Your task to perform on an android device: Open Yahoo.com Image 0: 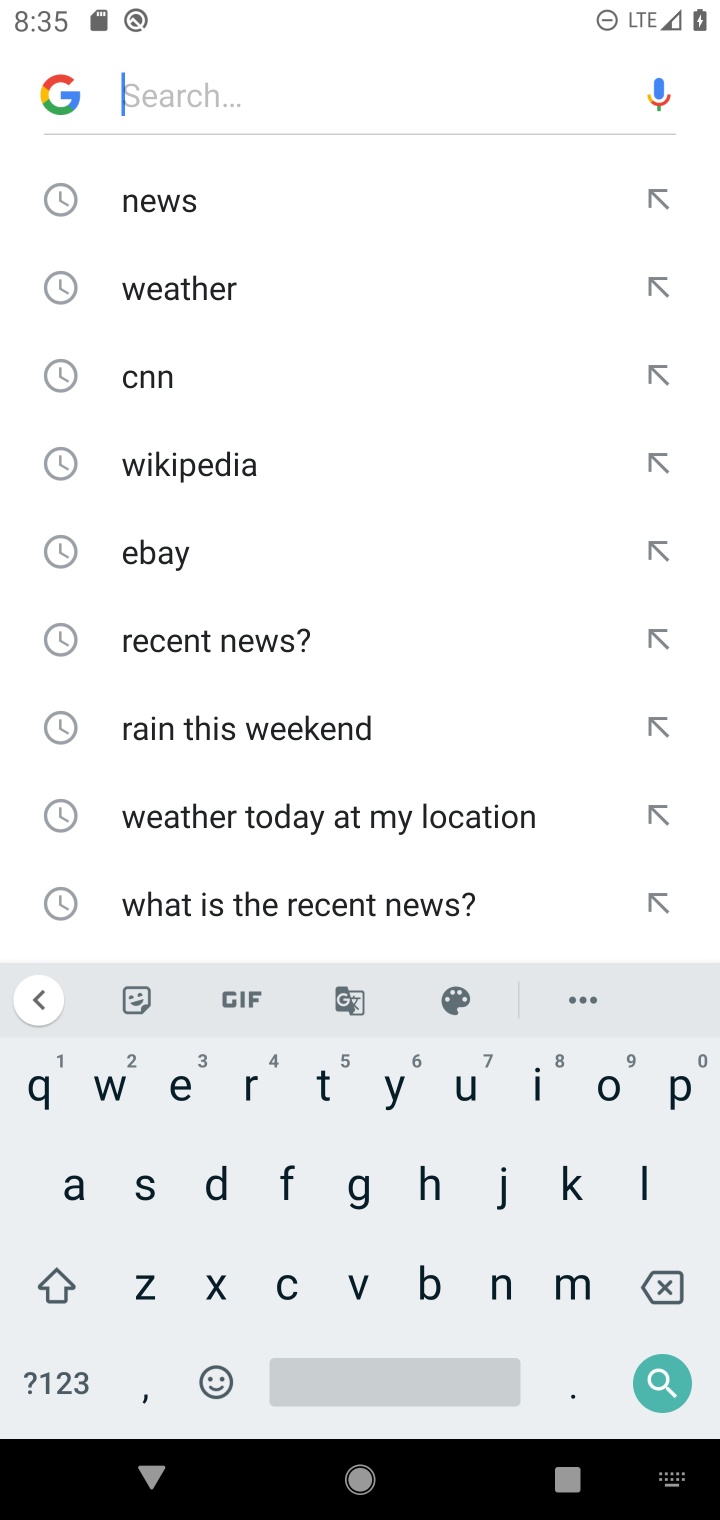
Step 0: press home button
Your task to perform on an android device: Open Yahoo.com Image 1: 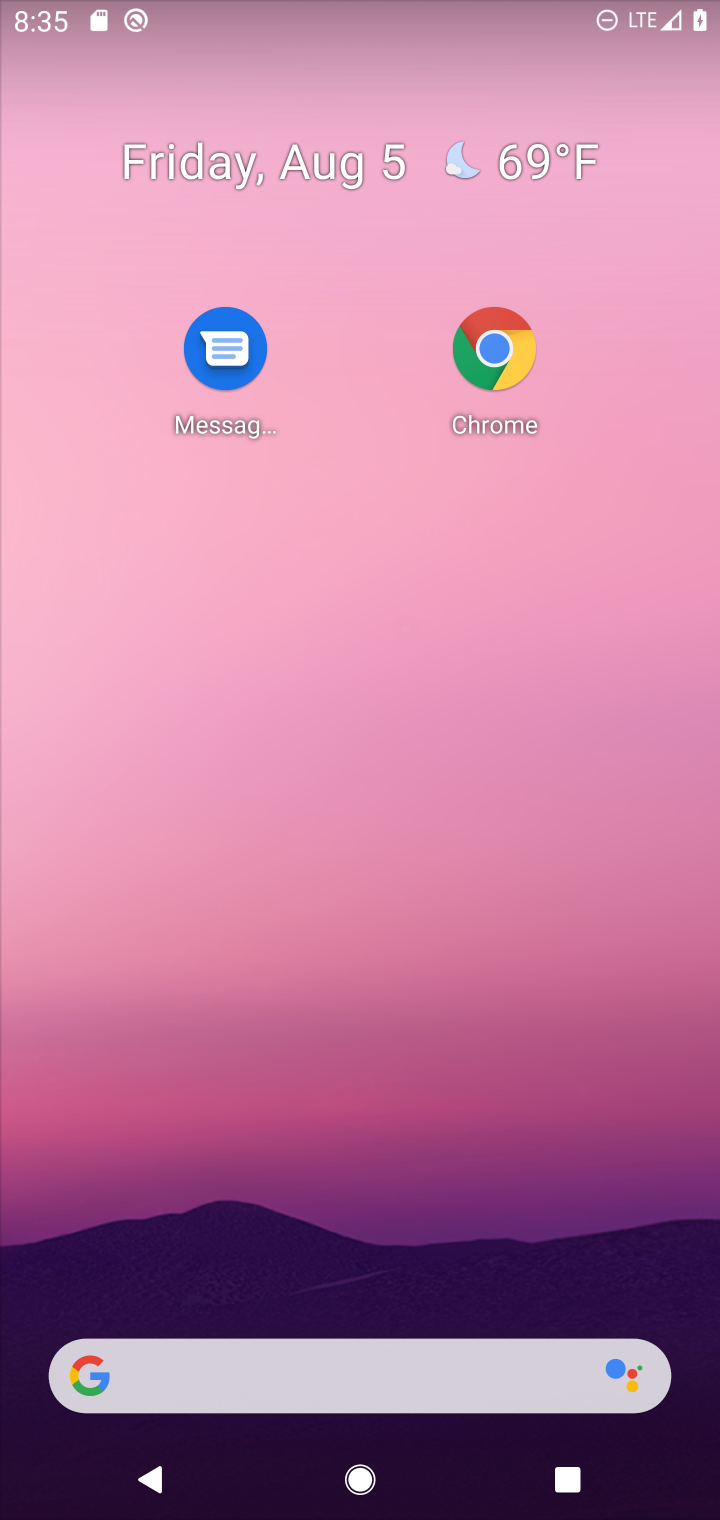
Step 1: drag from (452, 1131) to (405, 373)
Your task to perform on an android device: Open Yahoo.com Image 2: 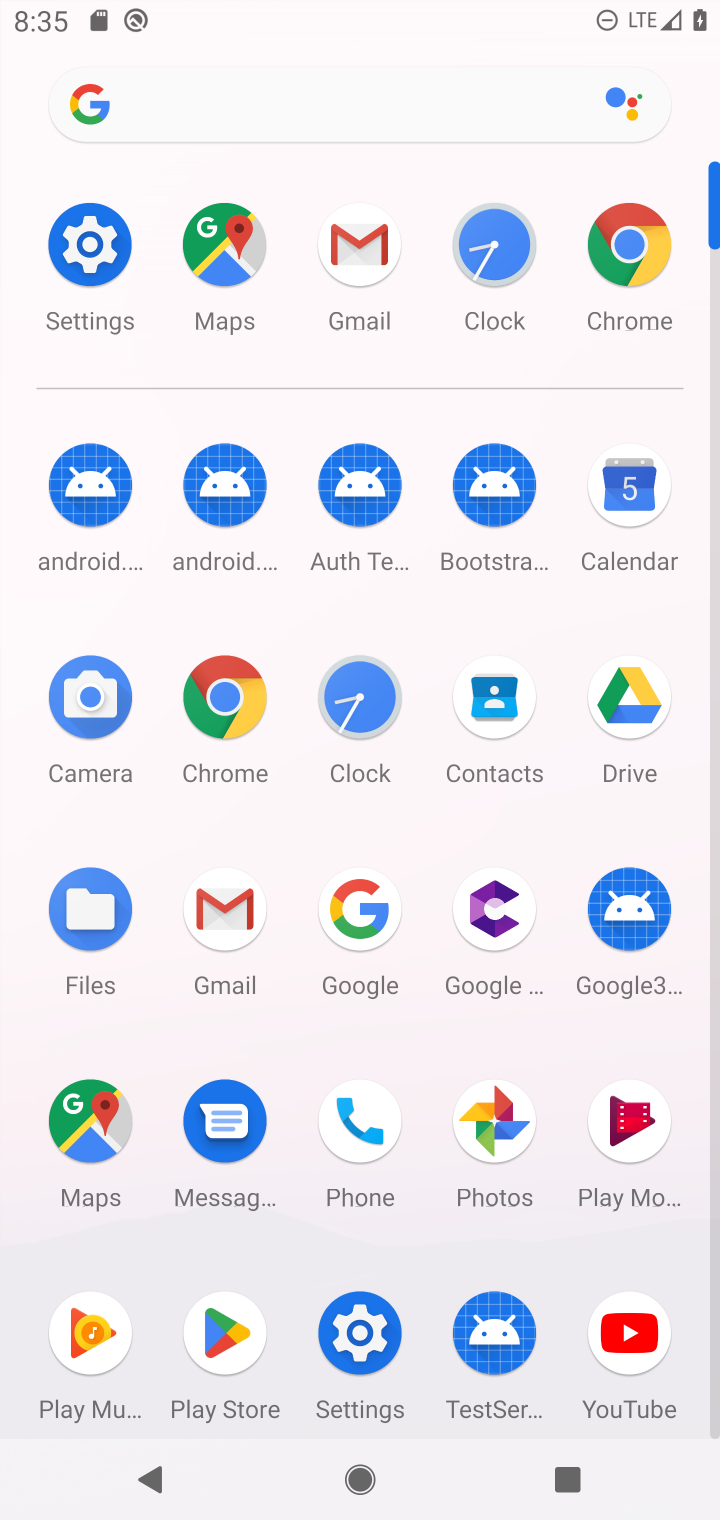
Step 2: click (659, 258)
Your task to perform on an android device: Open Yahoo.com Image 3: 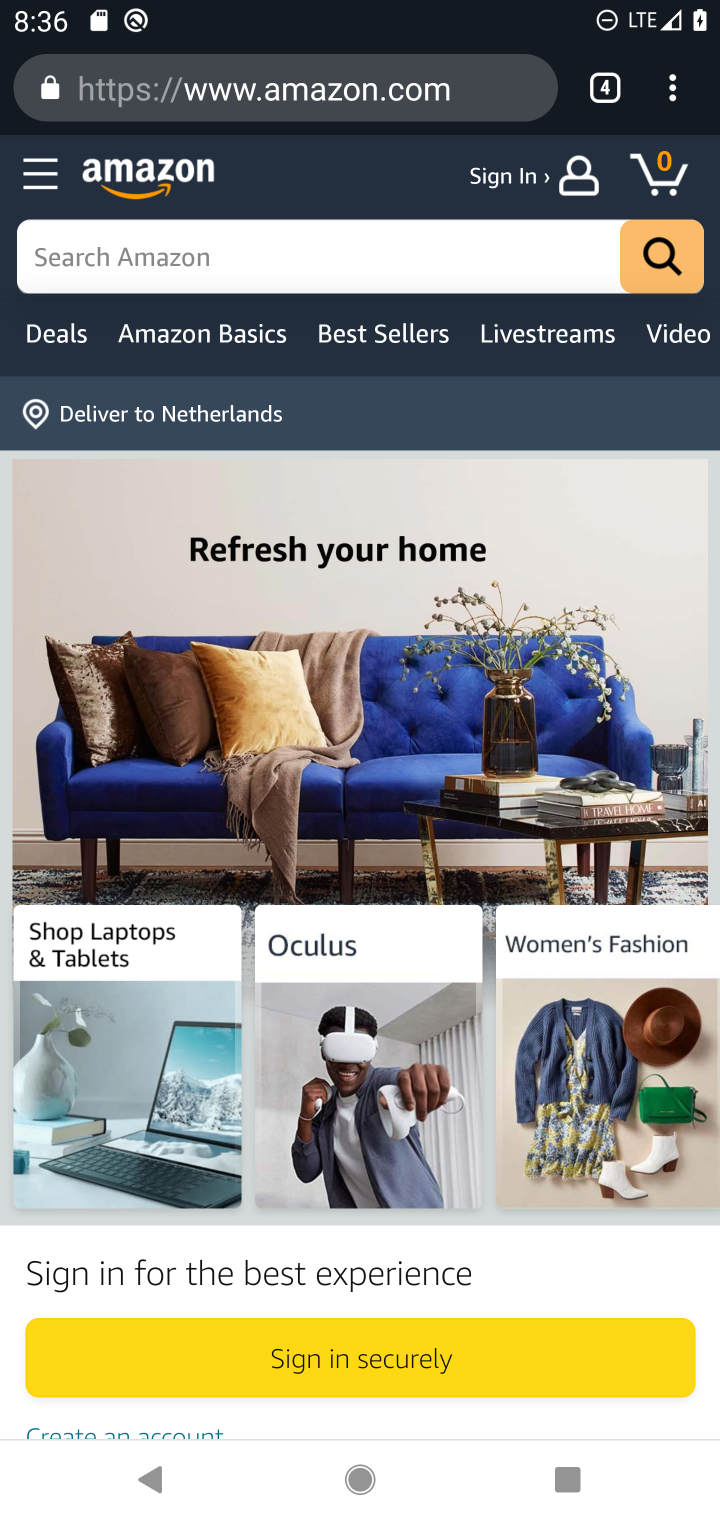
Step 3: click (616, 100)
Your task to perform on an android device: Open Yahoo.com Image 4: 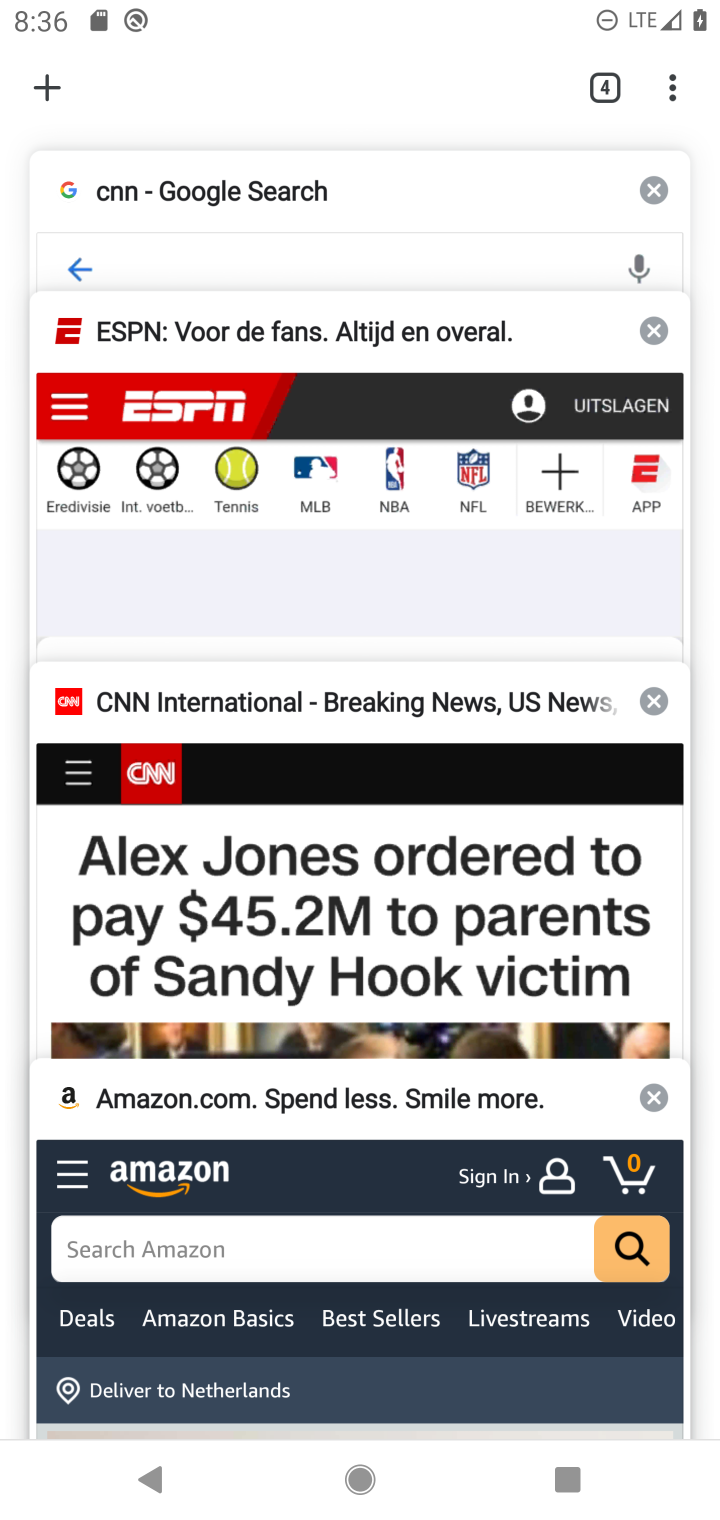
Step 4: click (47, 73)
Your task to perform on an android device: Open Yahoo.com Image 5: 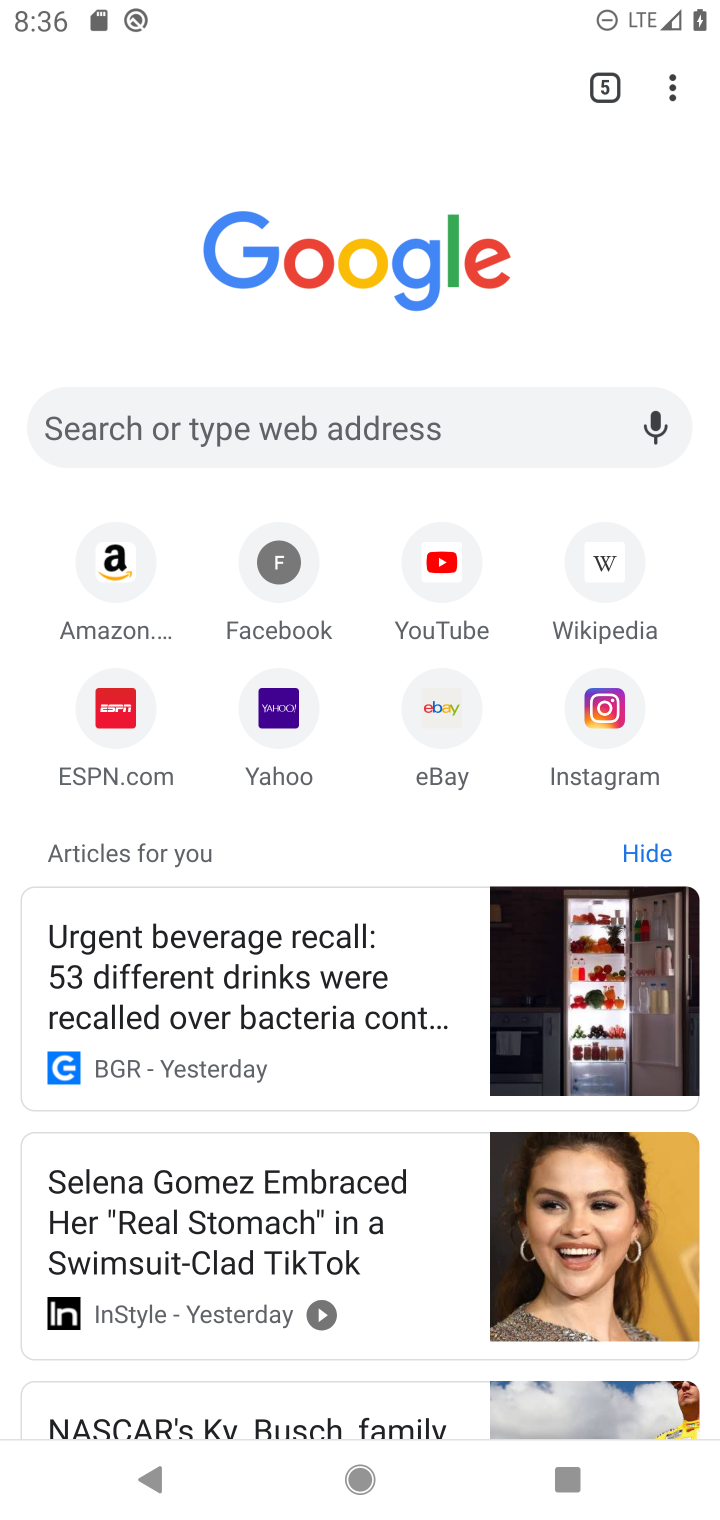
Step 5: click (273, 700)
Your task to perform on an android device: Open Yahoo.com Image 6: 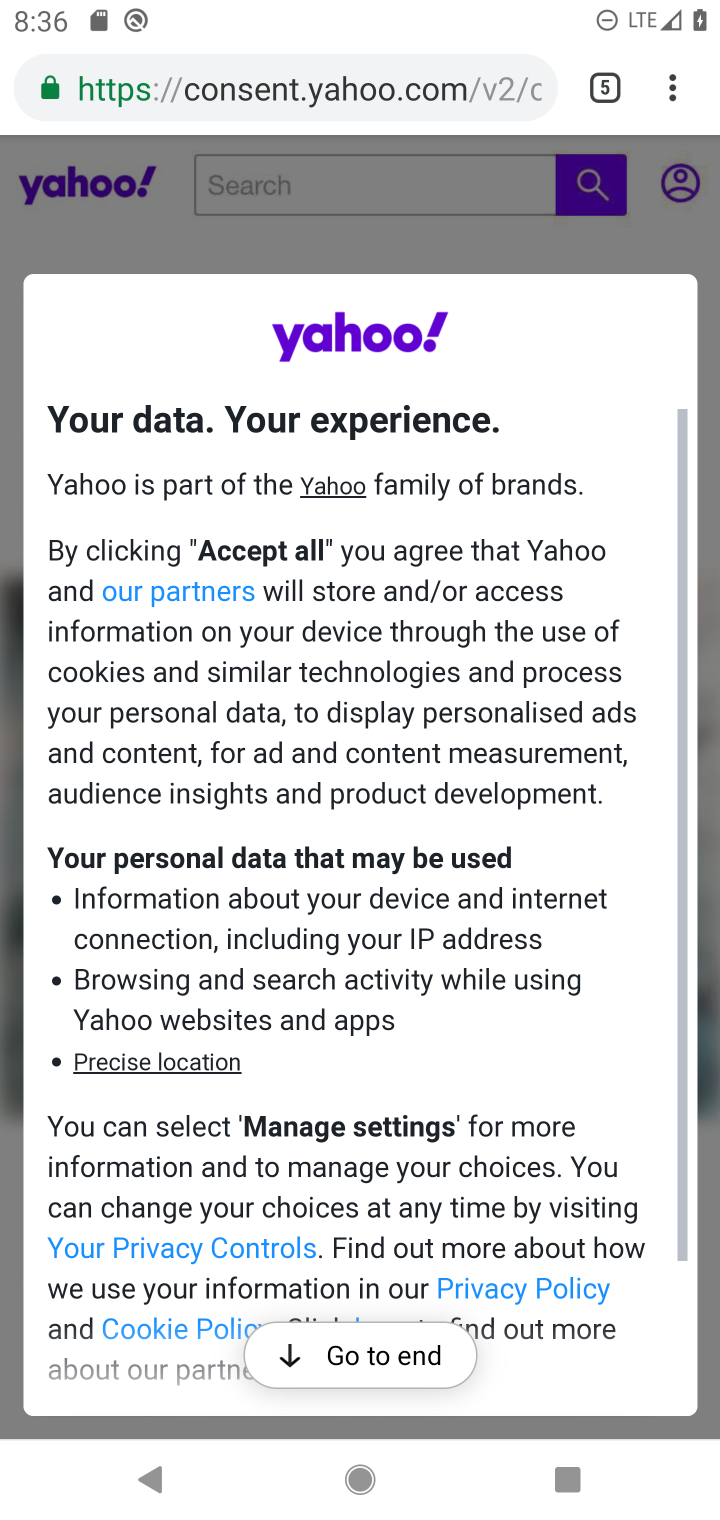
Step 6: drag from (390, 941) to (390, 725)
Your task to perform on an android device: Open Yahoo.com Image 7: 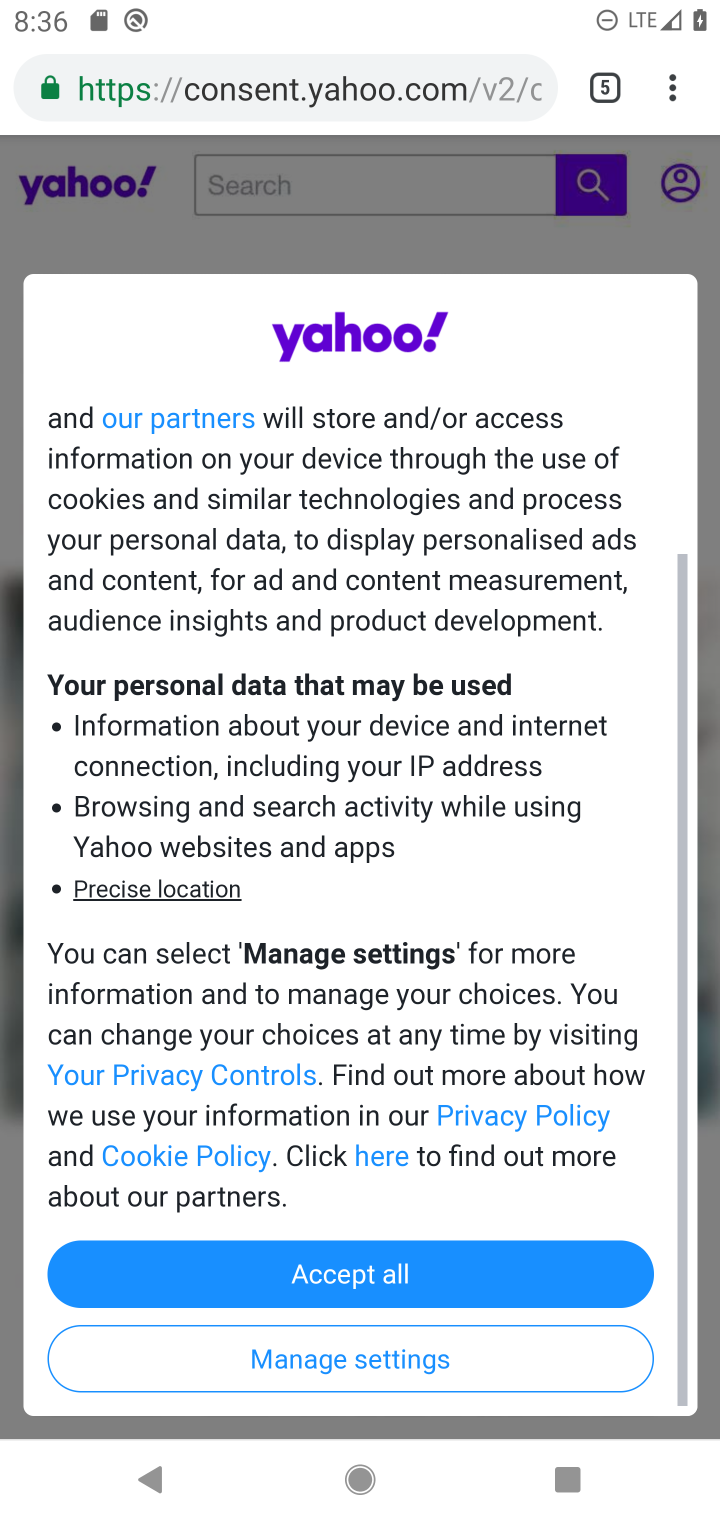
Step 7: click (371, 1262)
Your task to perform on an android device: Open Yahoo.com Image 8: 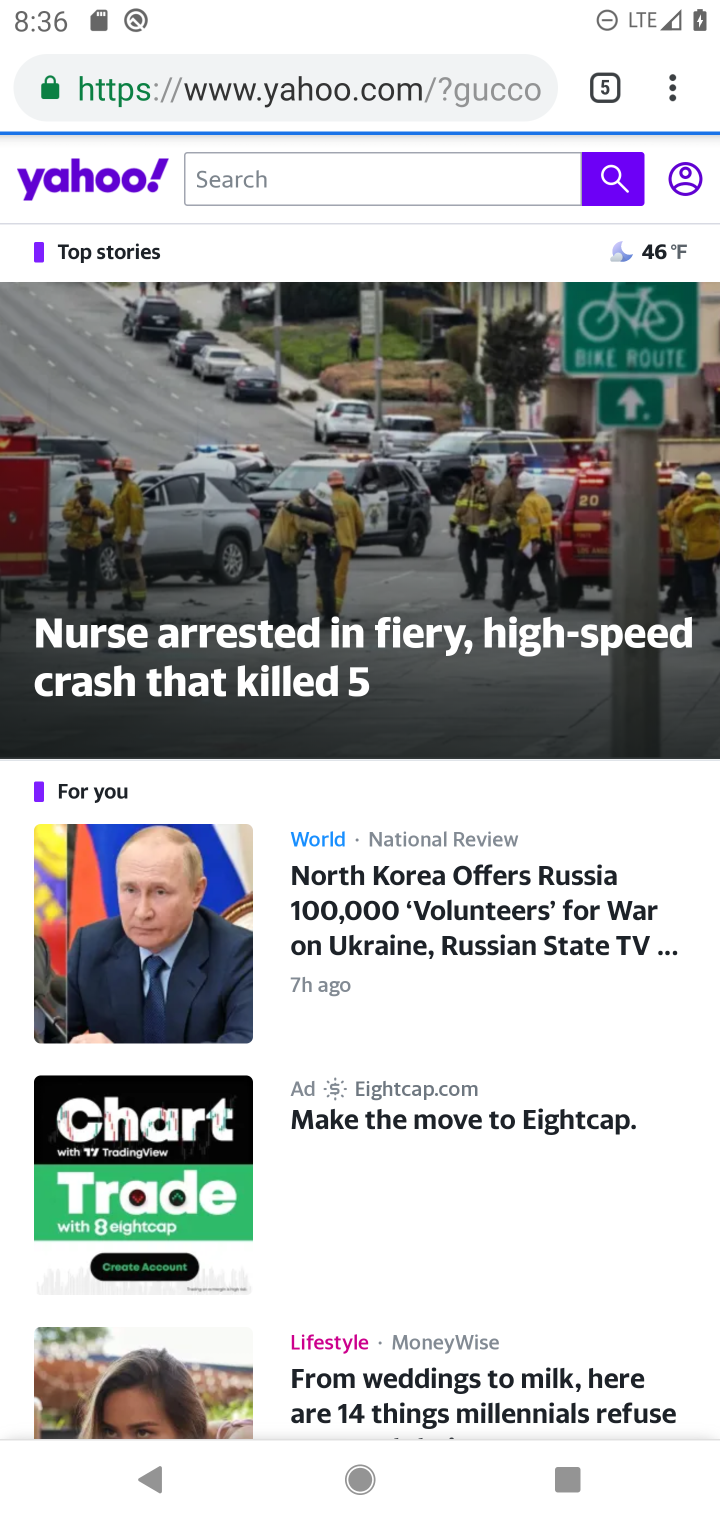
Step 8: task complete